Your task to perform on an android device: turn on the 12-hour format for clock Image 0: 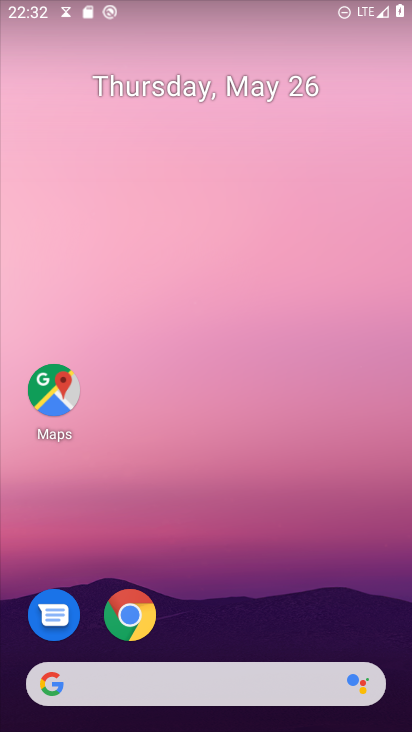
Step 0: drag from (273, 579) to (253, 264)
Your task to perform on an android device: turn on the 12-hour format for clock Image 1: 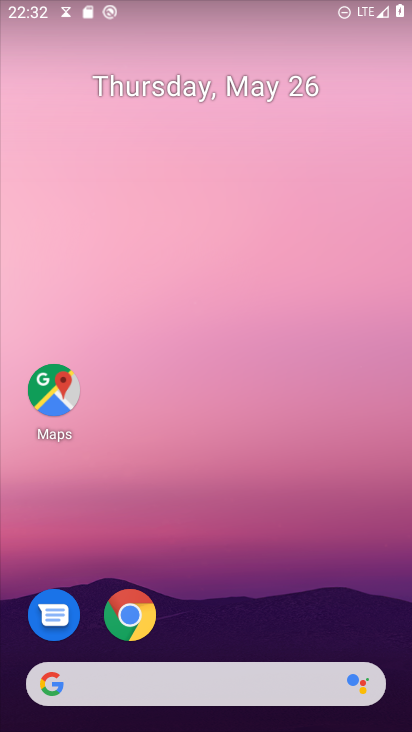
Step 1: drag from (223, 549) to (271, 188)
Your task to perform on an android device: turn on the 12-hour format for clock Image 2: 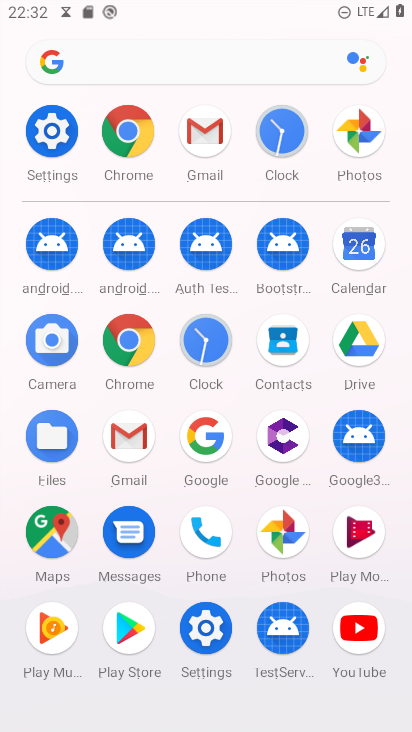
Step 2: click (203, 331)
Your task to perform on an android device: turn on the 12-hour format for clock Image 3: 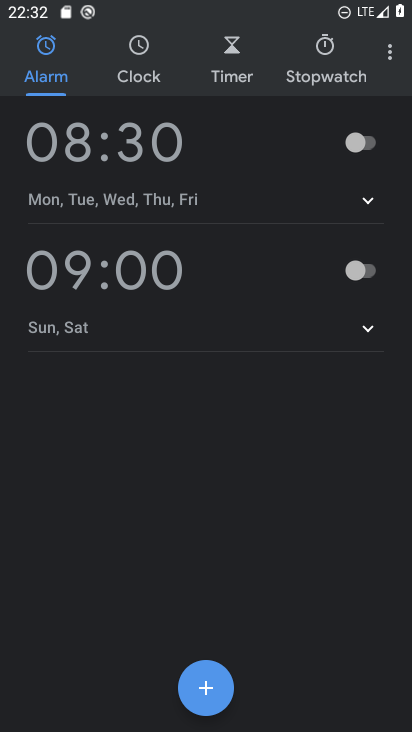
Step 3: click (387, 49)
Your task to perform on an android device: turn on the 12-hour format for clock Image 4: 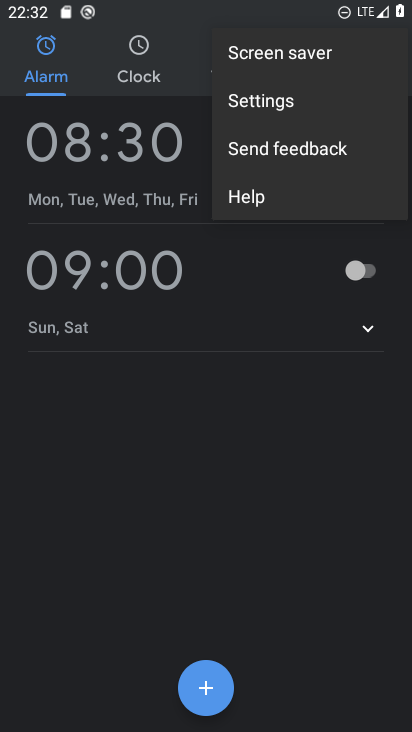
Step 4: click (287, 98)
Your task to perform on an android device: turn on the 12-hour format for clock Image 5: 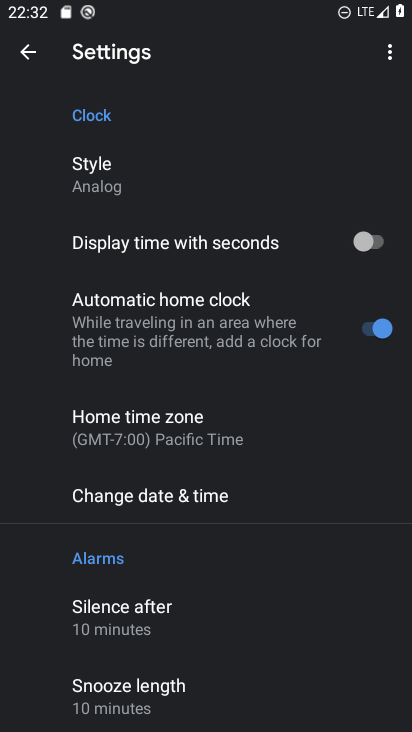
Step 5: click (178, 504)
Your task to perform on an android device: turn on the 12-hour format for clock Image 6: 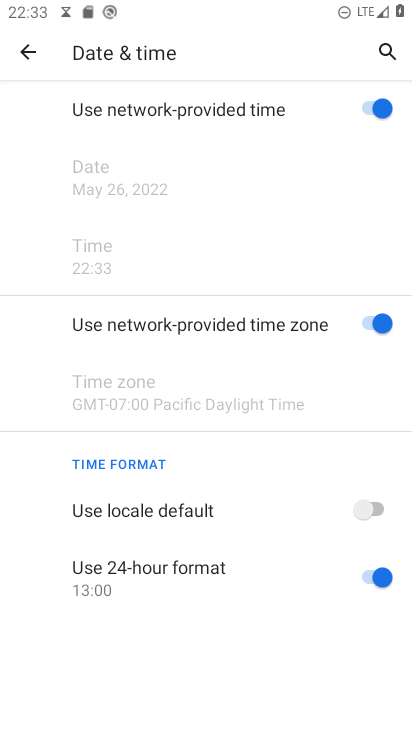
Step 6: task complete